Your task to perform on an android device: Open privacy settings Image 0: 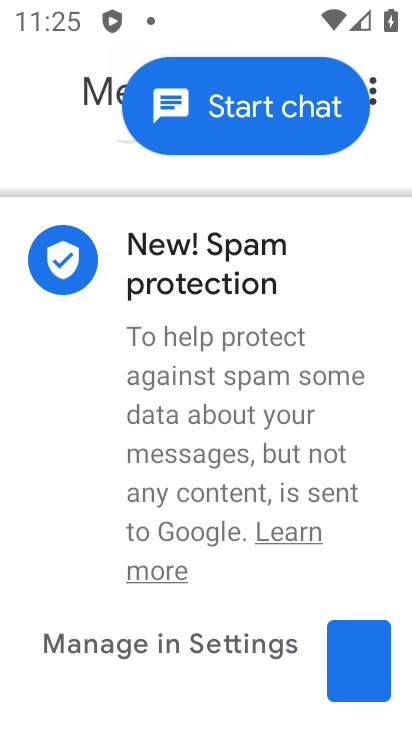
Step 0: press home button
Your task to perform on an android device: Open privacy settings Image 1: 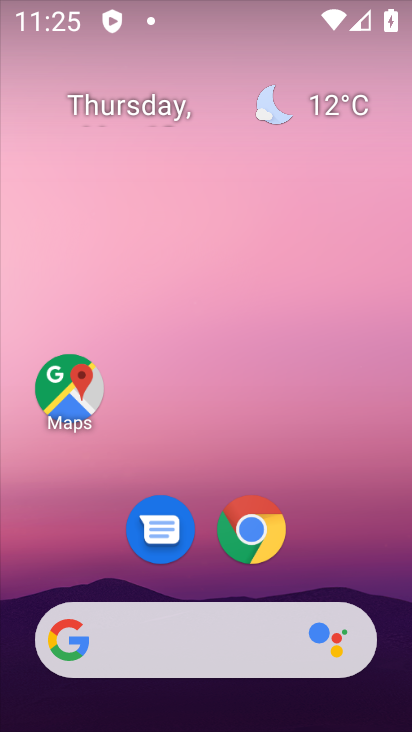
Step 1: drag from (311, 547) to (332, 244)
Your task to perform on an android device: Open privacy settings Image 2: 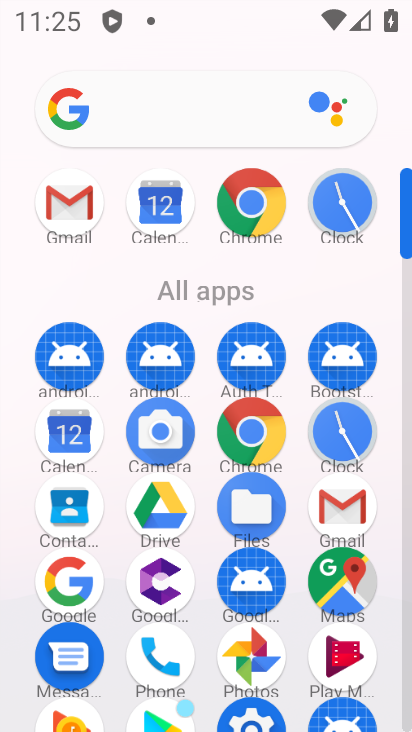
Step 2: drag from (225, 566) to (249, 270)
Your task to perform on an android device: Open privacy settings Image 3: 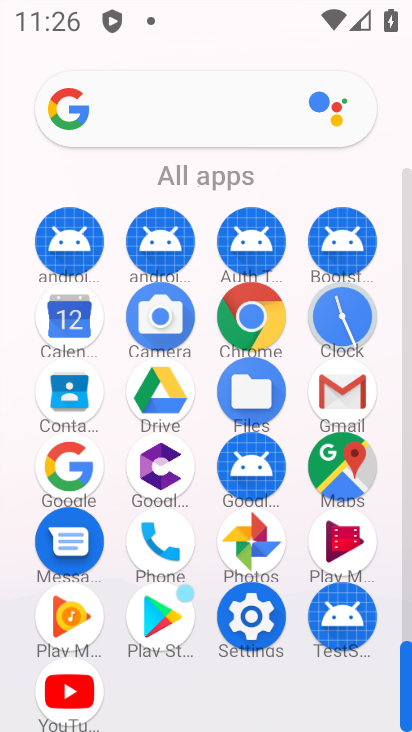
Step 3: click (229, 615)
Your task to perform on an android device: Open privacy settings Image 4: 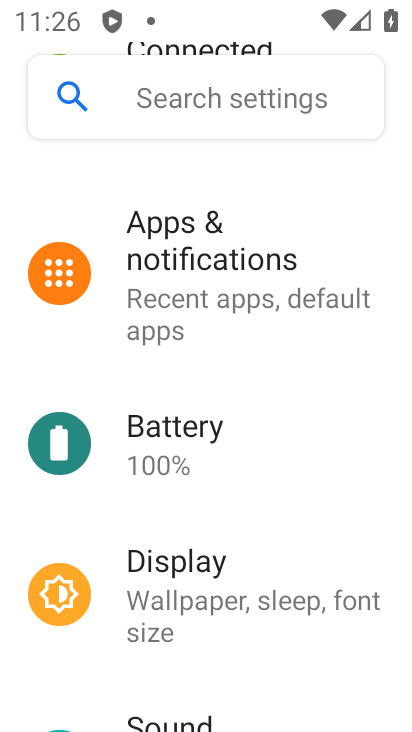
Step 4: drag from (254, 607) to (303, 125)
Your task to perform on an android device: Open privacy settings Image 5: 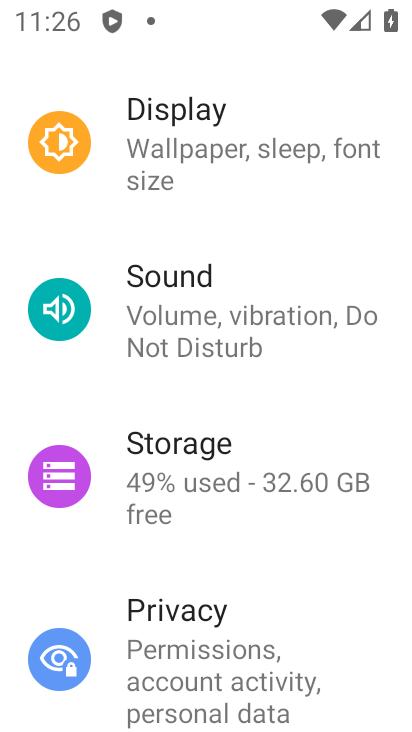
Step 5: drag from (245, 590) to (279, 295)
Your task to perform on an android device: Open privacy settings Image 6: 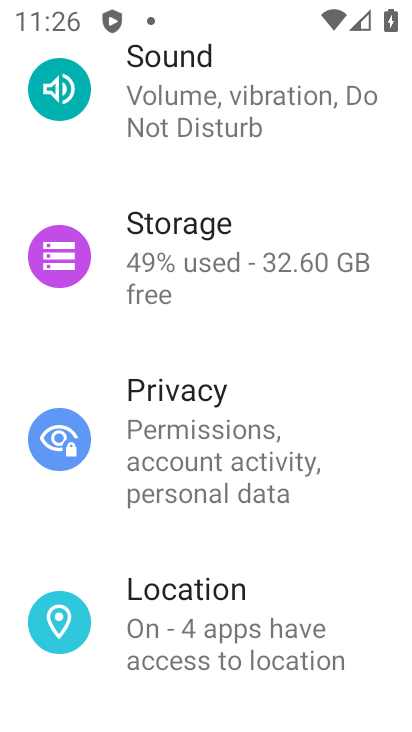
Step 6: click (182, 420)
Your task to perform on an android device: Open privacy settings Image 7: 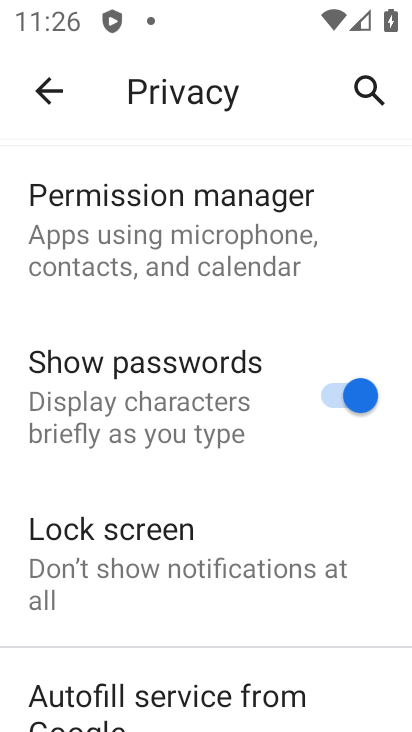
Step 7: task complete